Your task to perform on an android device: see creations saved in the google photos Image 0: 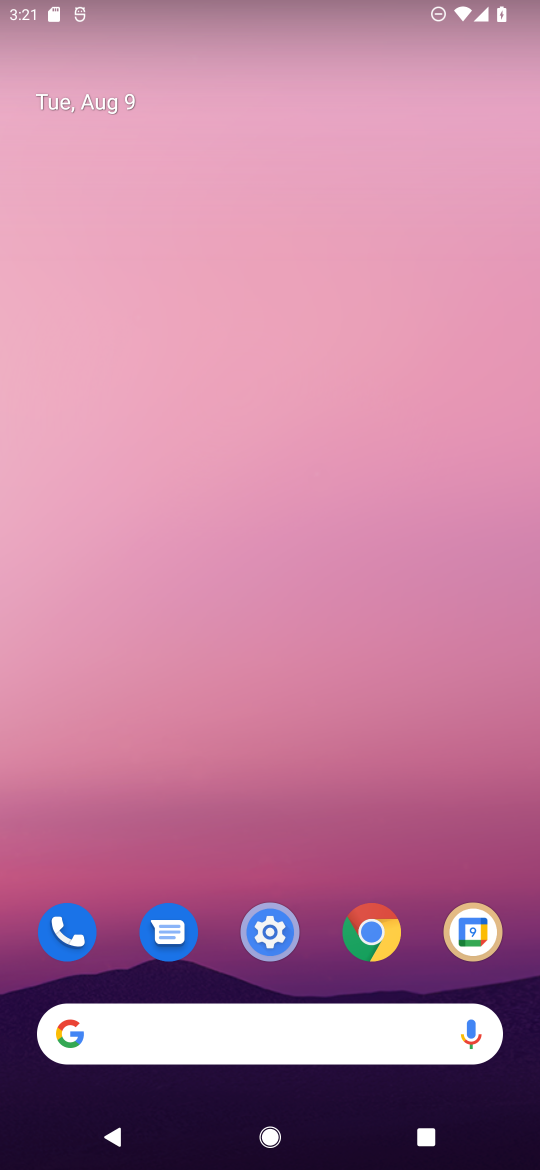
Step 0: drag from (154, 799) to (172, 673)
Your task to perform on an android device: see creations saved in the google photos Image 1: 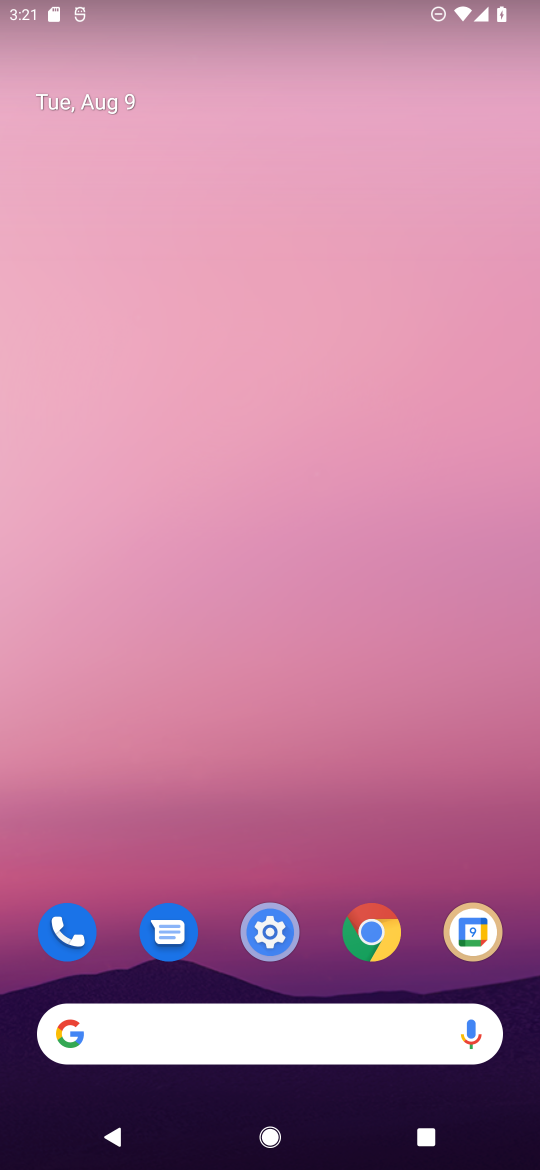
Step 1: drag from (33, 1143) to (216, 442)
Your task to perform on an android device: see creations saved in the google photos Image 2: 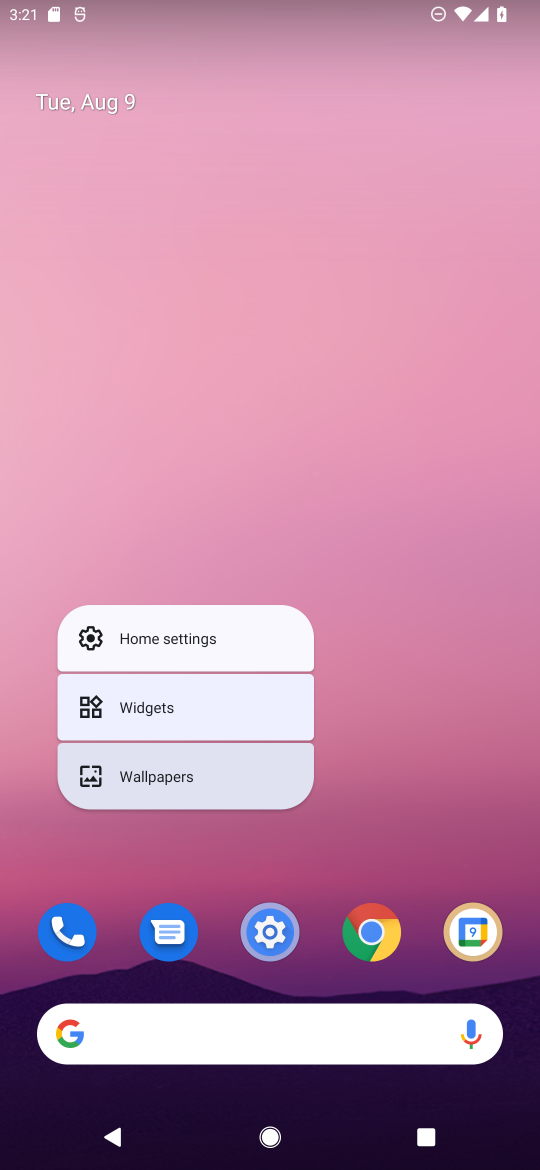
Step 2: drag from (81, 1138) to (226, 511)
Your task to perform on an android device: see creations saved in the google photos Image 3: 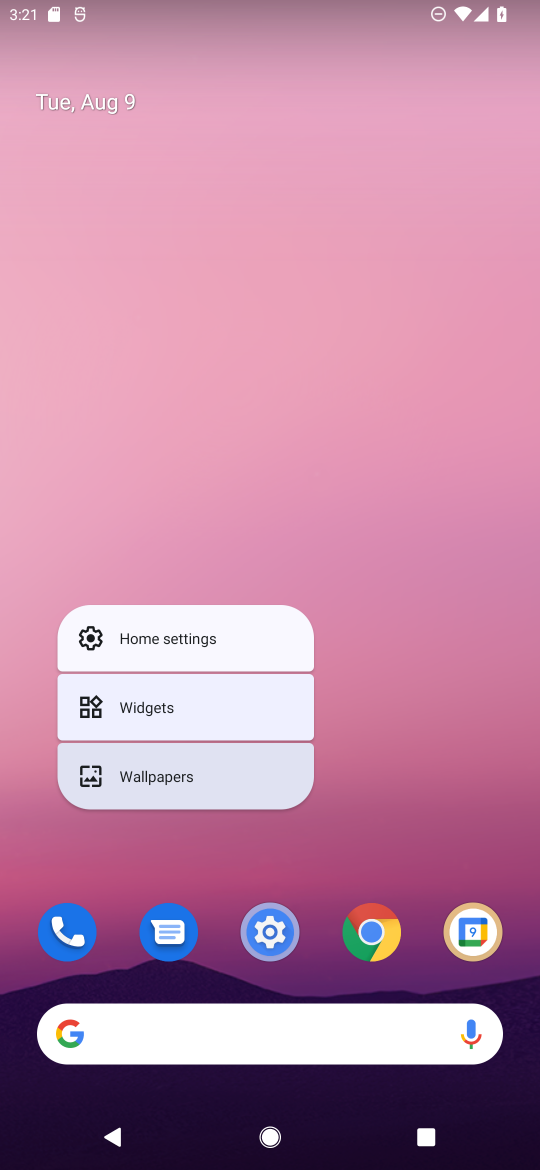
Step 3: click (46, 1119)
Your task to perform on an android device: see creations saved in the google photos Image 4: 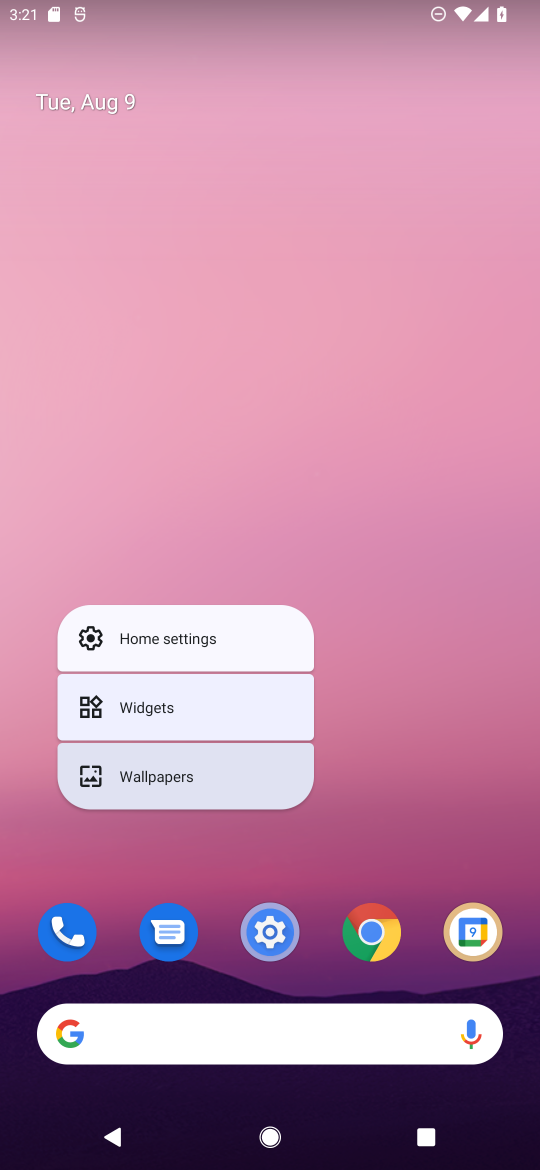
Step 4: drag from (46, 1119) to (292, 535)
Your task to perform on an android device: see creations saved in the google photos Image 5: 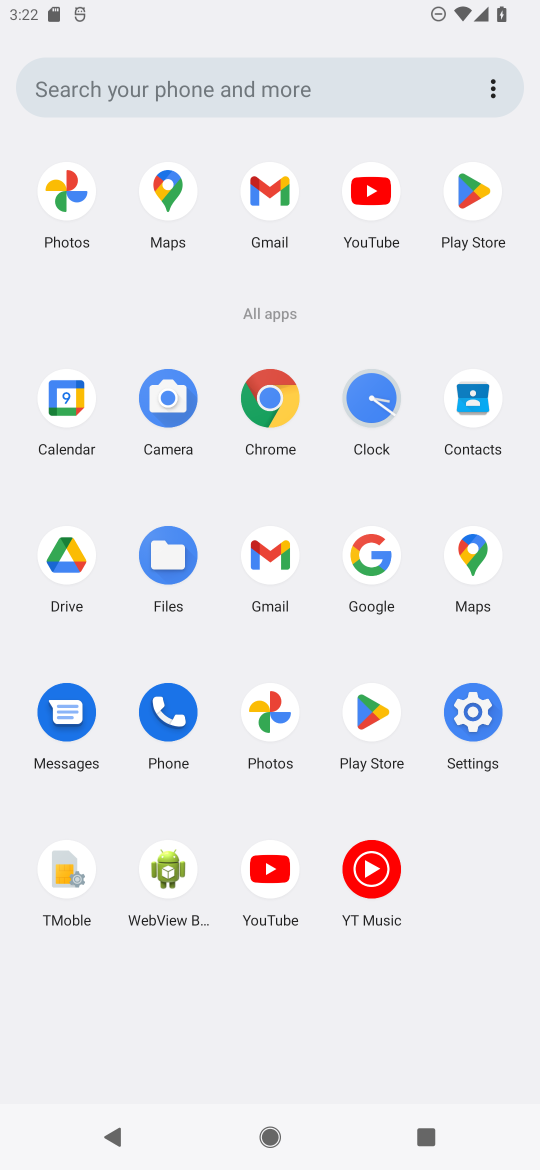
Step 5: click (276, 697)
Your task to perform on an android device: see creations saved in the google photos Image 6: 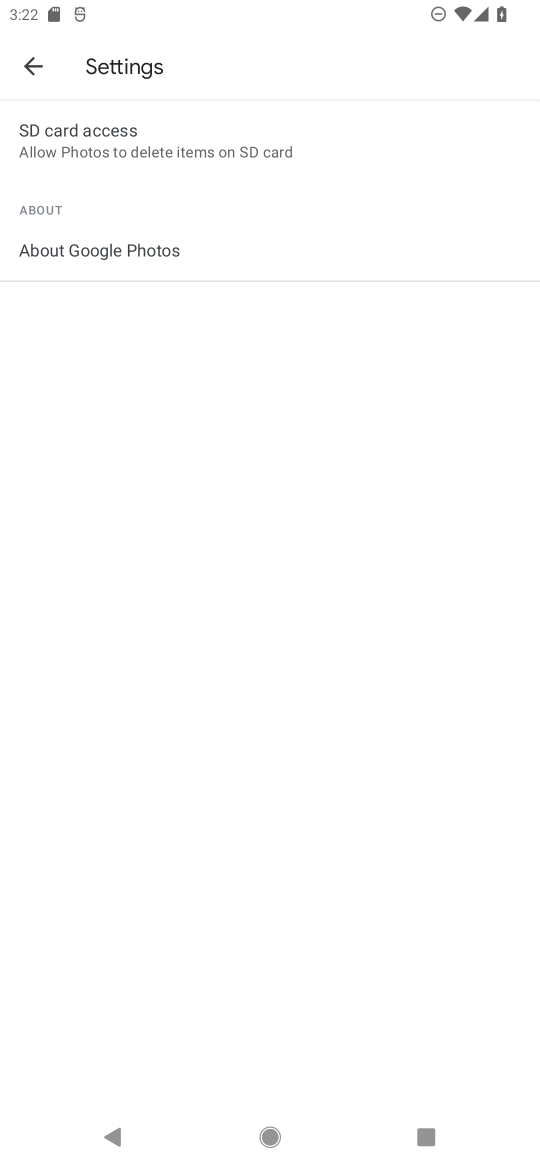
Step 6: click (34, 71)
Your task to perform on an android device: see creations saved in the google photos Image 7: 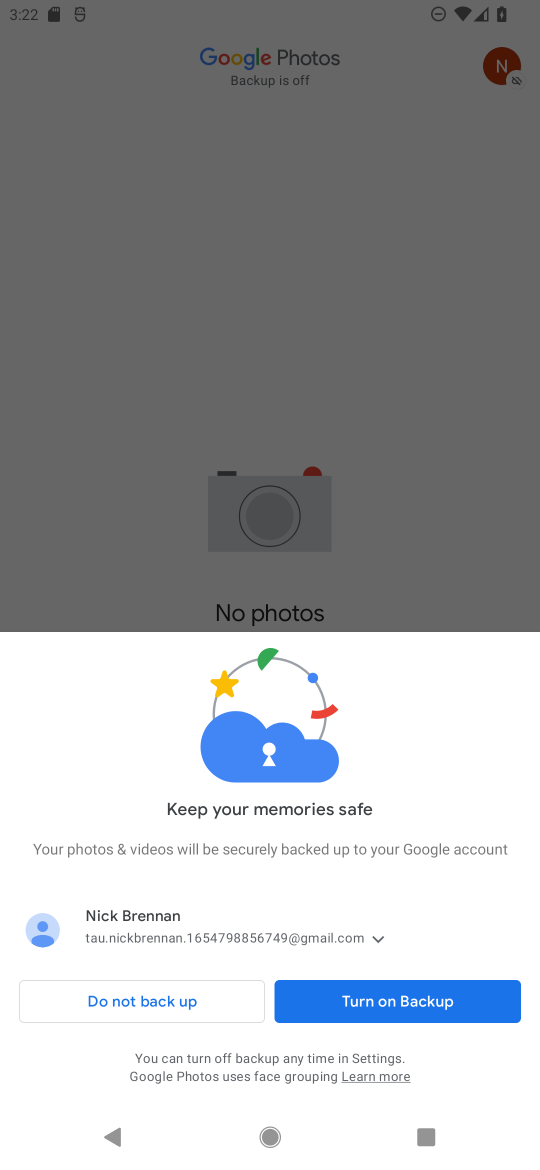
Step 7: click (141, 1004)
Your task to perform on an android device: see creations saved in the google photos Image 8: 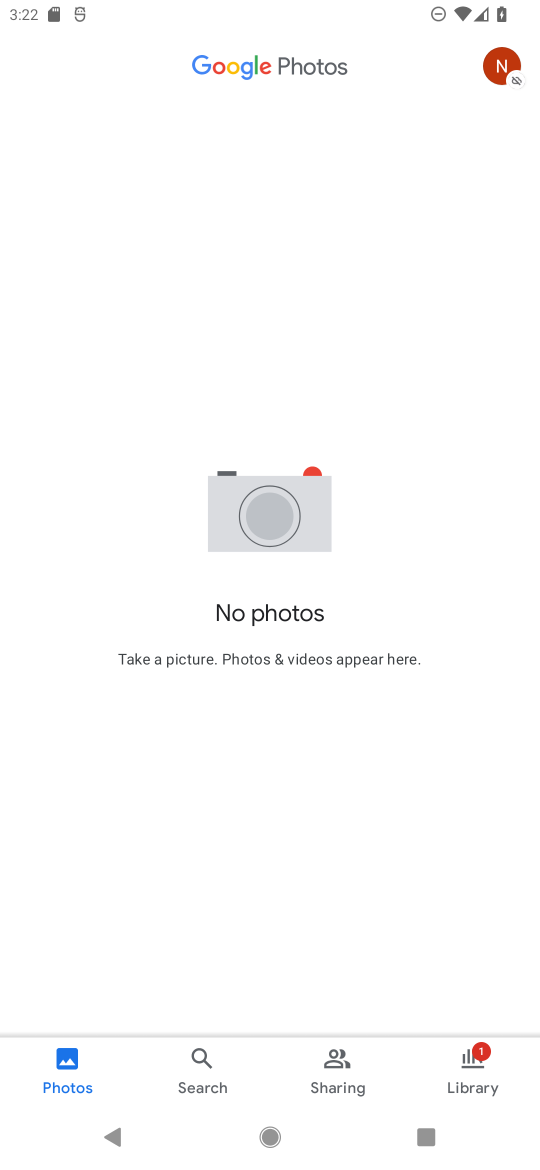
Step 8: task complete